Your task to perform on an android device: turn smart compose on in the gmail app Image 0: 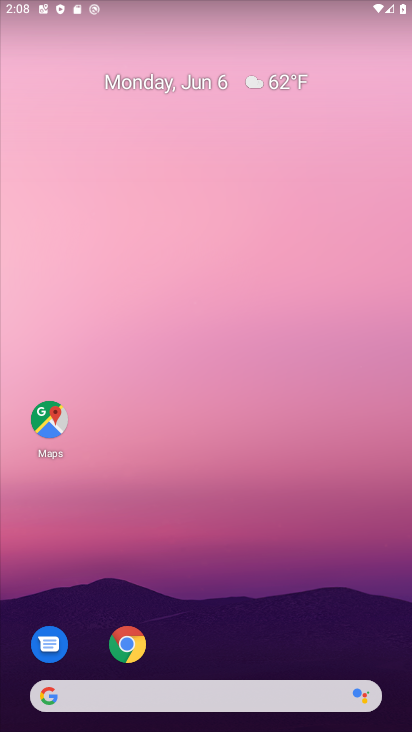
Step 0: drag from (120, 726) to (136, 137)
Your task to perform on an android device: turn smart compose on in the gmail app Image 1: 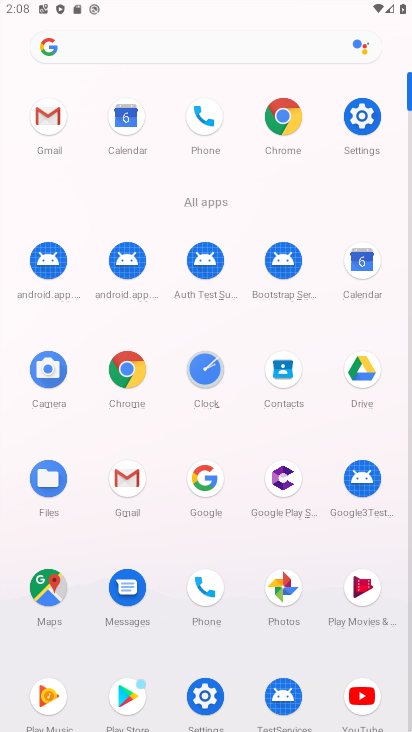
Step 1: click (53, 113)
Your task to perform on an android device: turn smart compose on in the gmail app Image 2: 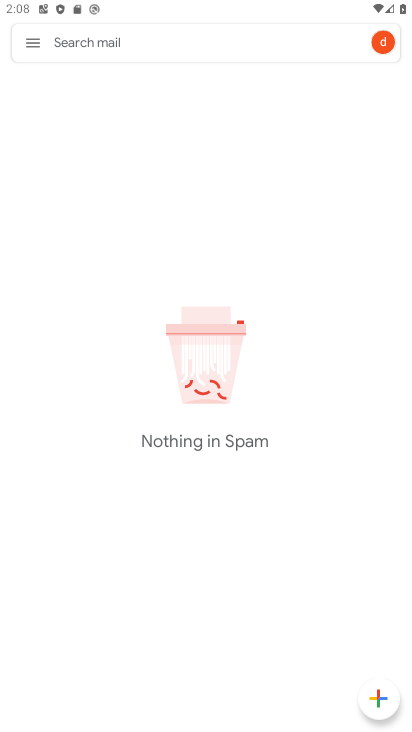
Step 2: click (38, 47)
Your task to perform on an android device: turn smart compose on in the gmail app Image 3: 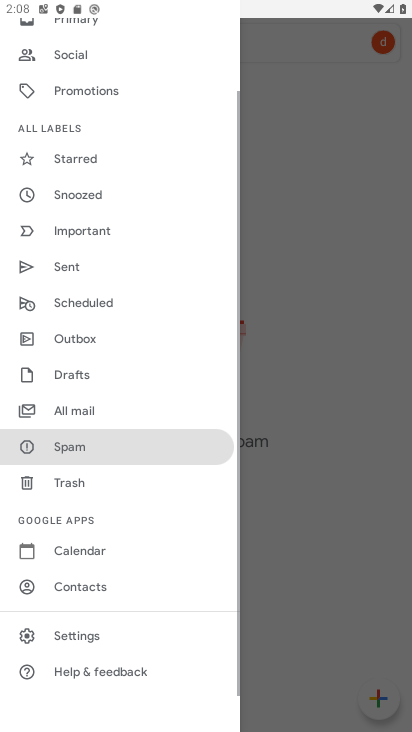
Step 3: click (94, 640)
Your task to perform on an android device: turn smart compose on in the gmail app Image 4: 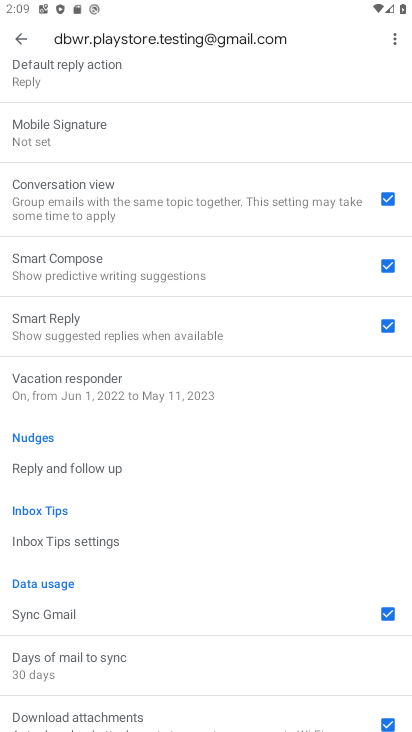
Step 4: task complete